Your task to perform on an android device: What's on my calendar tomorrow? Image 0: 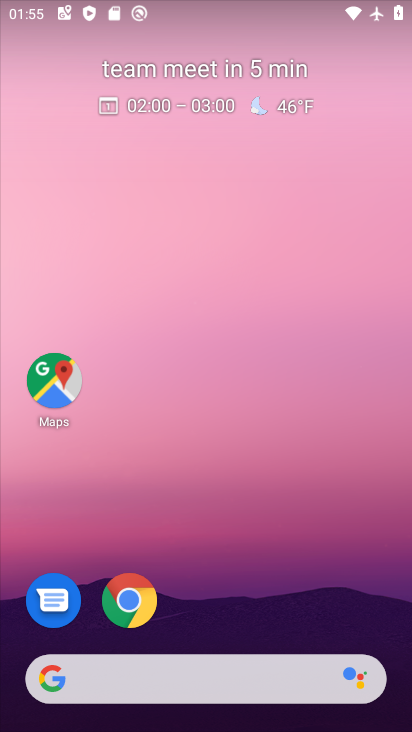
Step 0: drag from (175, 642) to (130, 13)
Your task to perform on an android device: What's on my calendar tomorrow? Image 1: 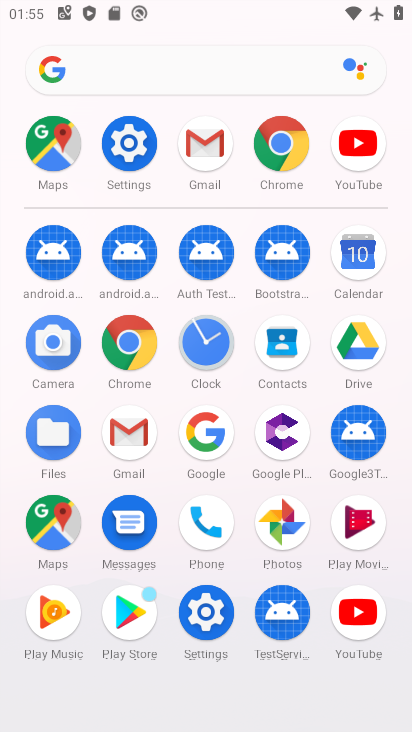
Step 1: click (365, 265)
Your task to perform on an android device: What's on my calendar tomorrow? Image 2: 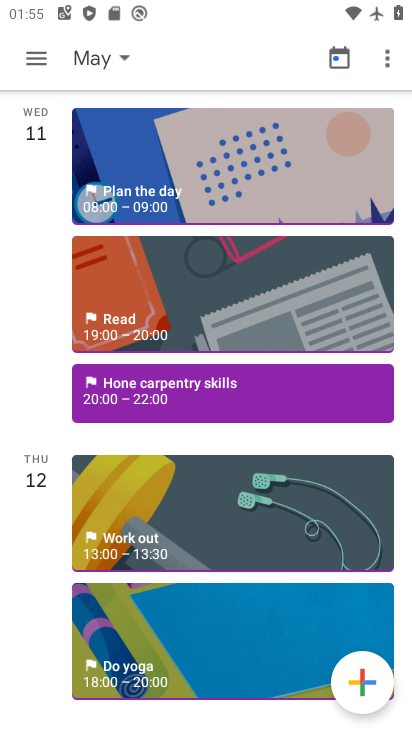
Step 2: click (342, 53)
Your task to perform on an android device: What's on my calendar tomorrow? Image 3: 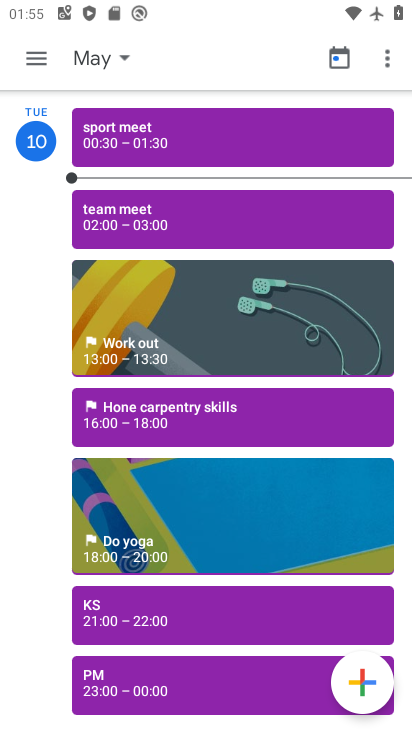
Step 3: click (336, 60)
Your task to perform on an android device: What's on my calendar tomorrow? Image 4: 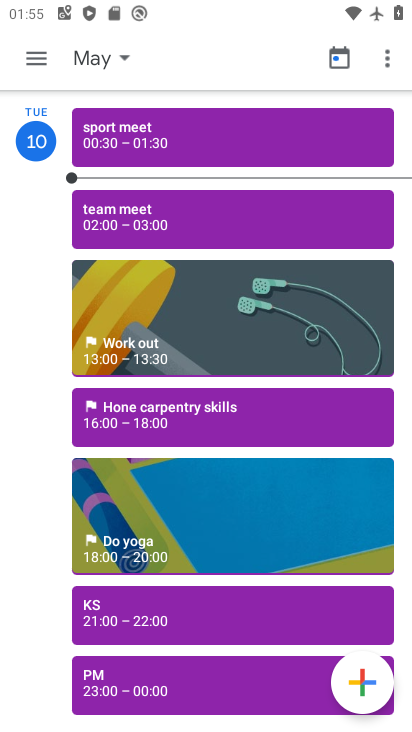
Step 4: click (344, 60)
Your task to perform on an android device: What's on my calendar tomorrow? Image 5: 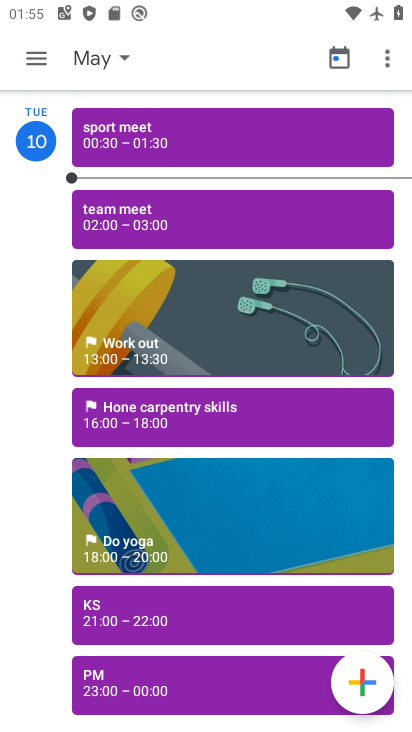
Step 5: click (336, 52)
Your task to perform on an android device: What's on my calendar tomorrow? Image 6: 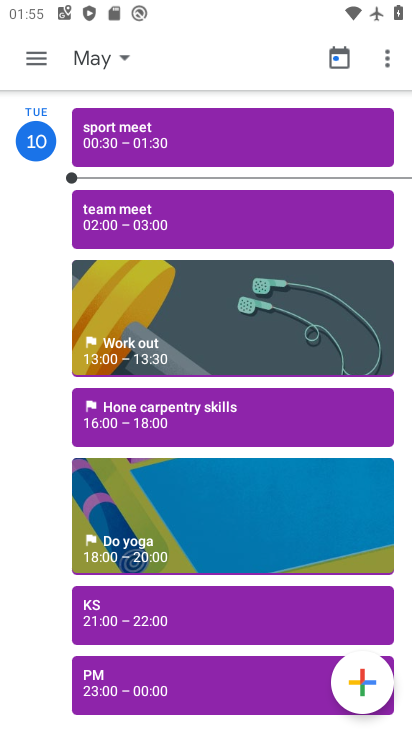
Step 6: click (22, 57)
Your task to perform on an android device: What's on my calendar tomorrow? Image 7: 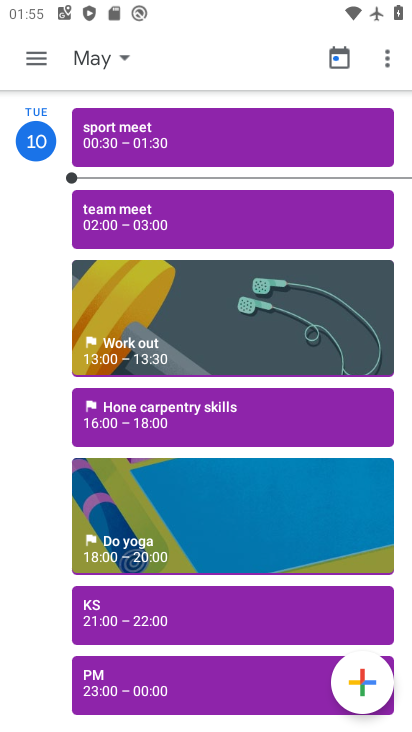
Step 7: click (27, 53)
Your task to perform on an android device: What's on my calendar tomorrow? Image 8: 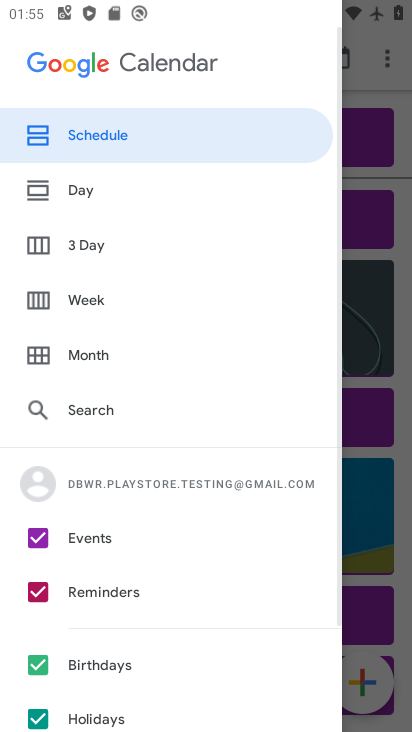
Step 8: click (107, 293)
Your task to perform on an android device: What's on my calendar tomorrow? Image 9: 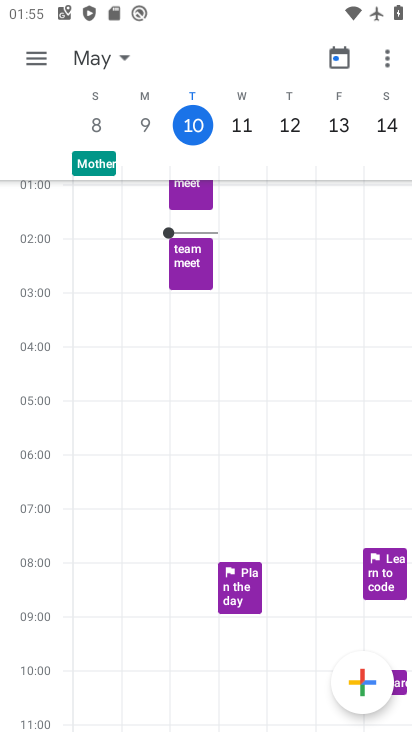
Step 9: click (240, 108)
Your task to perform on an android device: What's on my calendar tomorrow? Image 10: 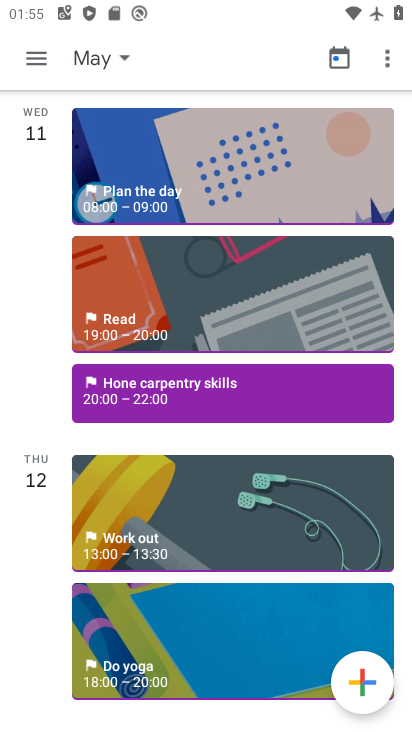
Step 10: task complete